Your task to perform on an android device: toggle wifi Image 0: 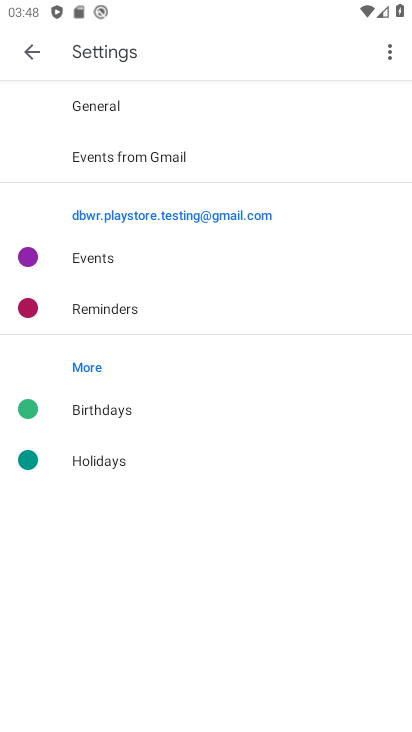
Step 0: drag from (278, 2) to (264, 343)
Your task to perform on an android device: toggle wifi Image 1: 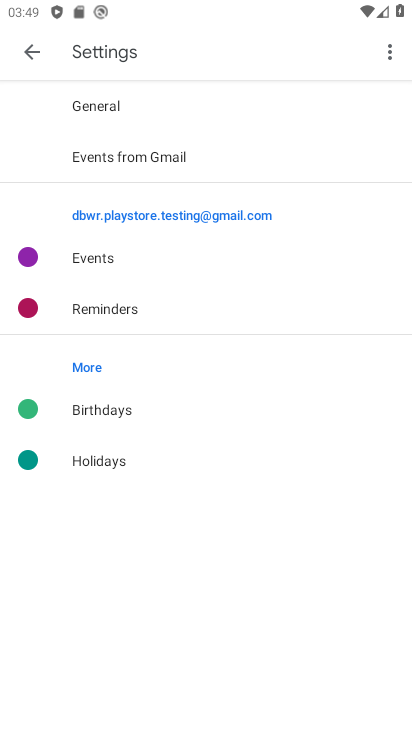
Step 1: drag from (88, 4) to (128, 485)
Your task to perform on an android device: toggle wifi Image 2: 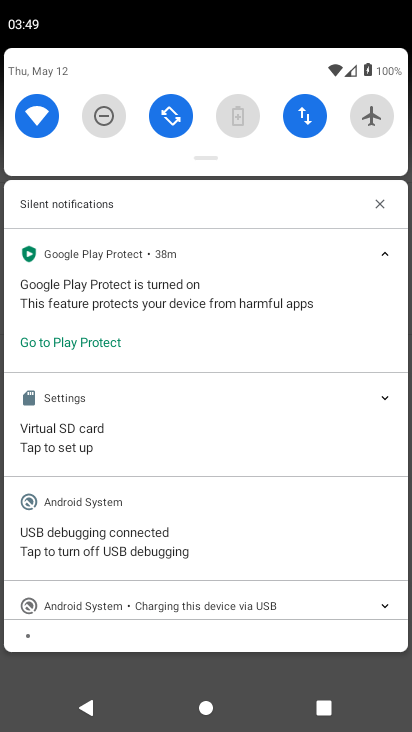
Step 2: click (50, 103)
Your task to perform on an android device: toggle wifi Image 3: 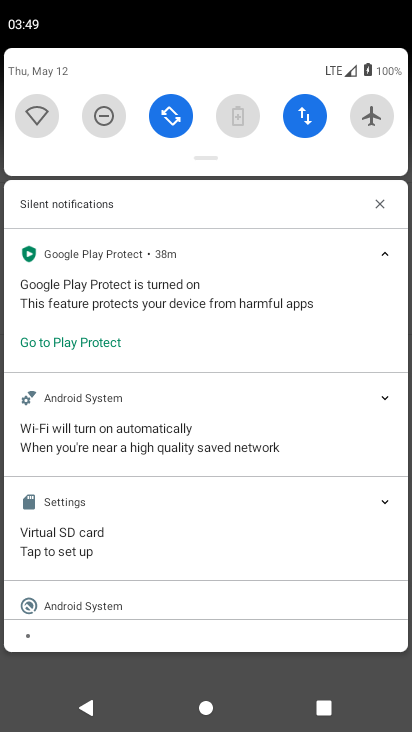
Step 3: task complete